Your task to perform on an android device: Go to internet settings Image 0: 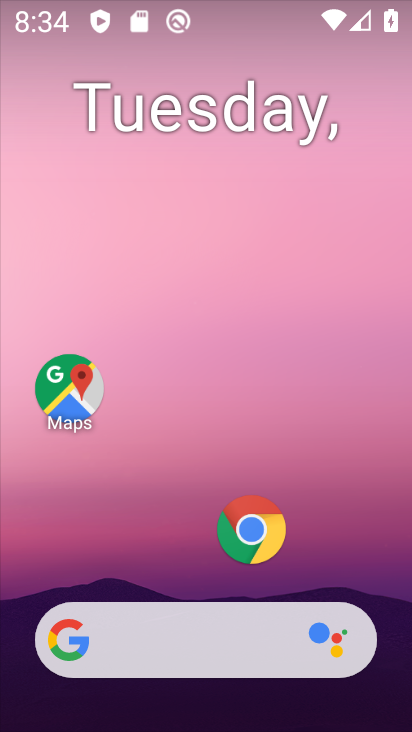
Step 0: drag from (198, 562) to (211, 110)
Your task to perform on an android device: Go to internet settings Image 1: 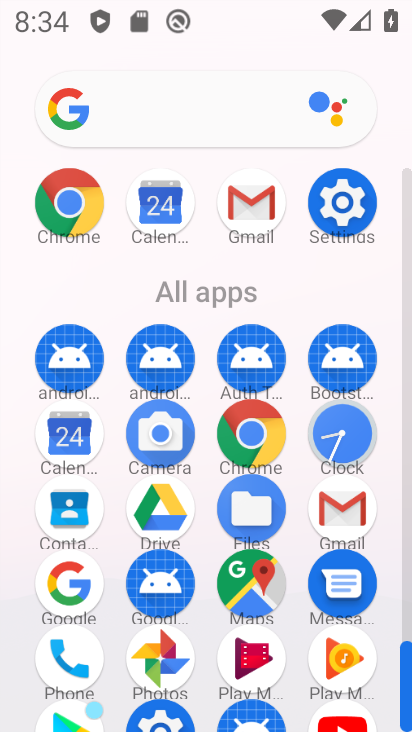
Step 1: click (333, 191)
Your task to perform on an android device: Go to internet settings Image 2: 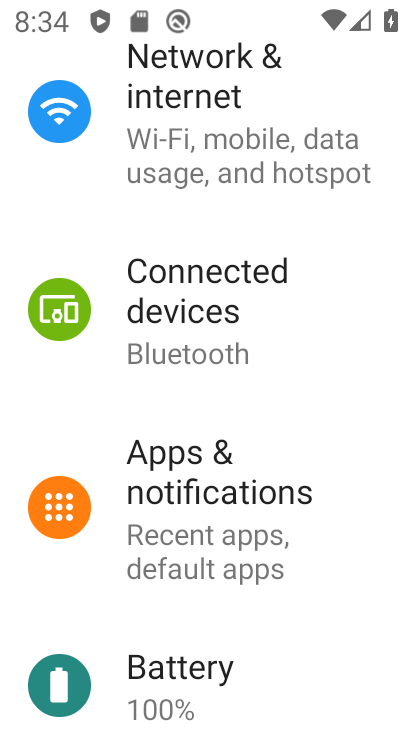
Step 2: click (166, 127)
Your task to perform on an android device: Go to internet settings Image 3: 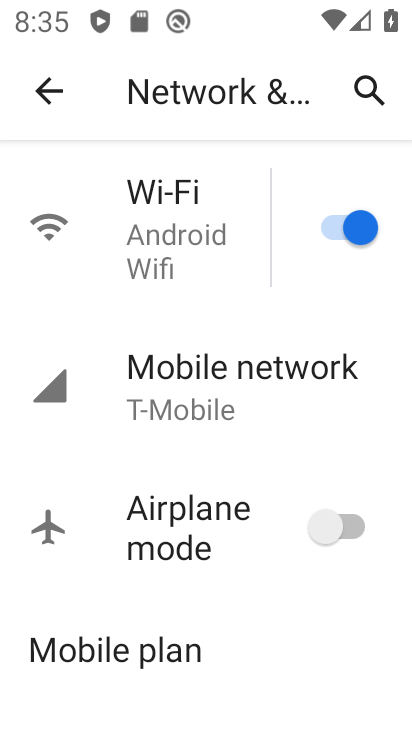
Step 3: drag from (199, 647) to (191, 246)
Your task to perform on an android device: Go to internet settings Image 4: 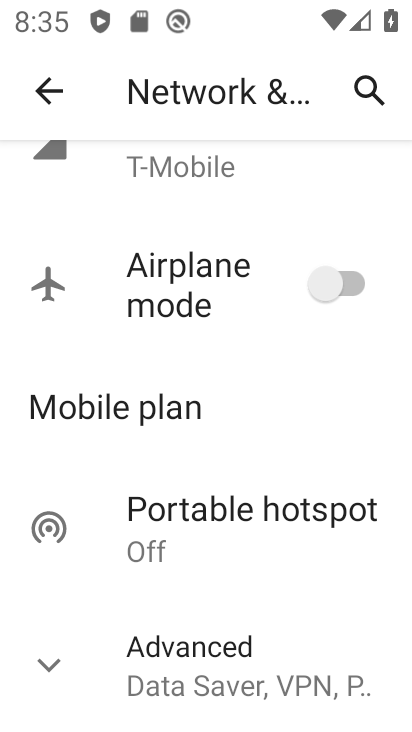
Step 4: click (52, 660)
Your task to perform on an android device: Go to internet settings Image 5: 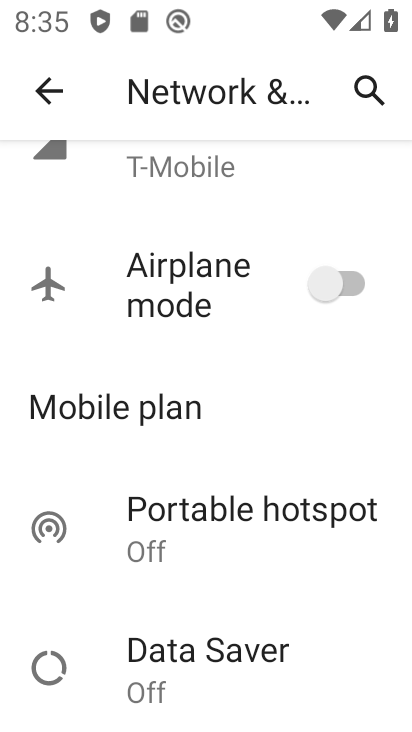
Step 5: task complete